Your task to perform on an android device: turn on improve location accuracy Image 0: 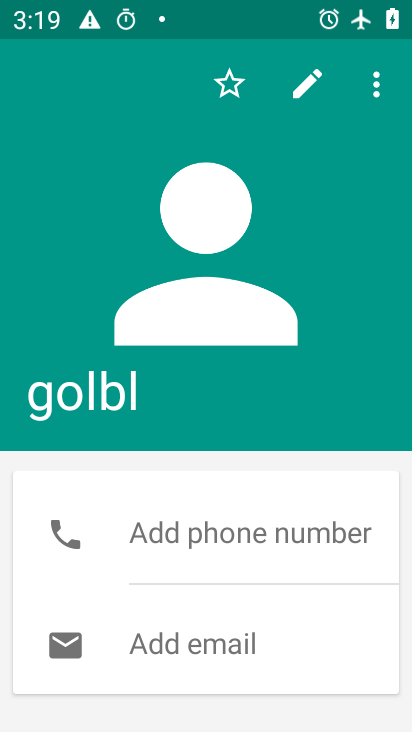
Step 0: press home button
Your task to perform on an android device: turn on improve location accuracy Image 1: 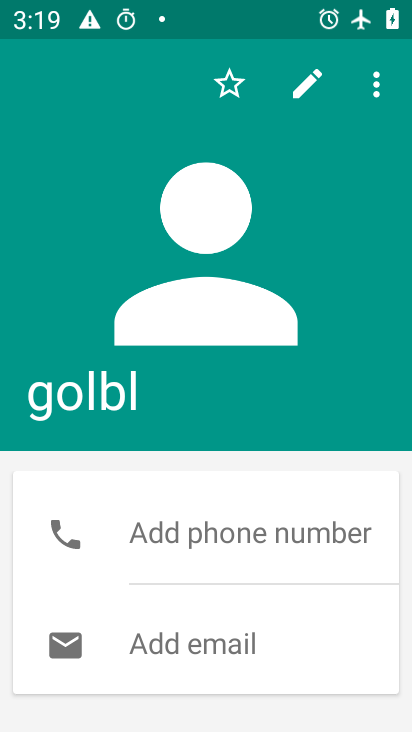
Step 1: press home button
Your task to perform on an android device: turn on improve location accuracy Image 2: 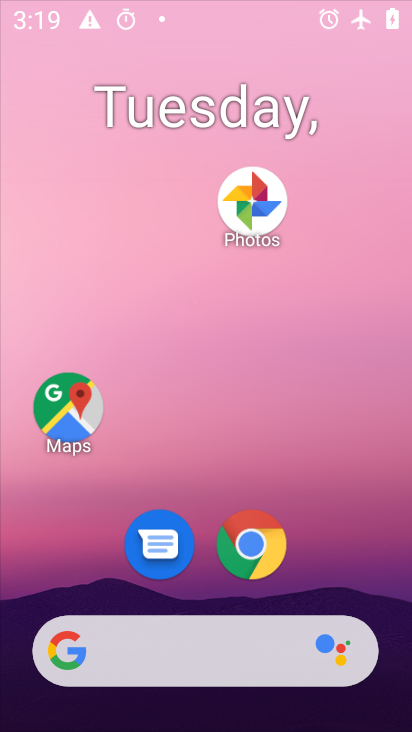
Step 2: press home button
Your task to perform on an android device: turn on improve location accuracy Image 3: 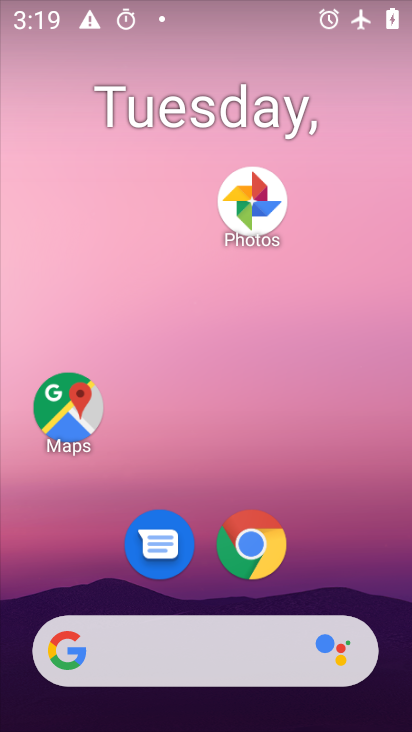
Step 3: drag from (320, 577) to (367, 59)
Your task to perform on an android device: turn on improve location accuracy Image 4: 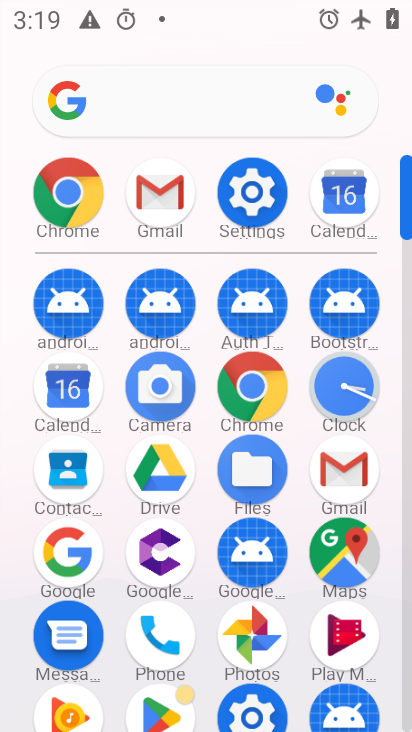
Step 4: click (236, 697)
Your task to perform on an android device: turn on improve location accuracy Image 5: 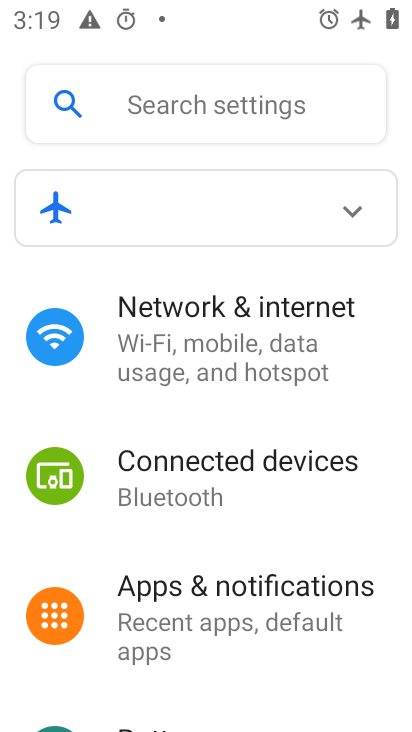
Step 5: drag from (258, 559) to (251, 119)
Your task to perform on an android device: turn on improve location accuracy Image 6: 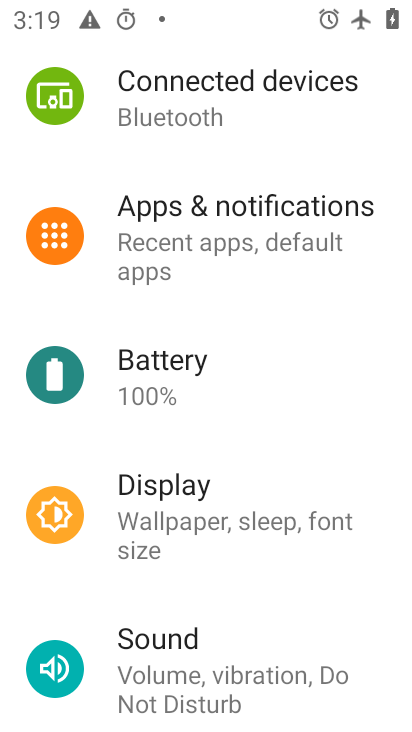
Step 6: drag from (250, 552) to (267, 121)
Your task to perform on an android device: turn on improve location accuracy Image 7: 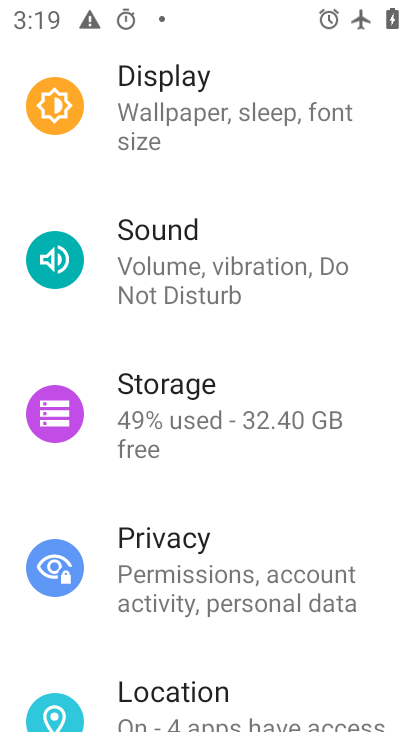
Step 7: drag from (258, 550) to (275, 118)
Your task to perform on an android device: turn on improve location accuracy Image 8: 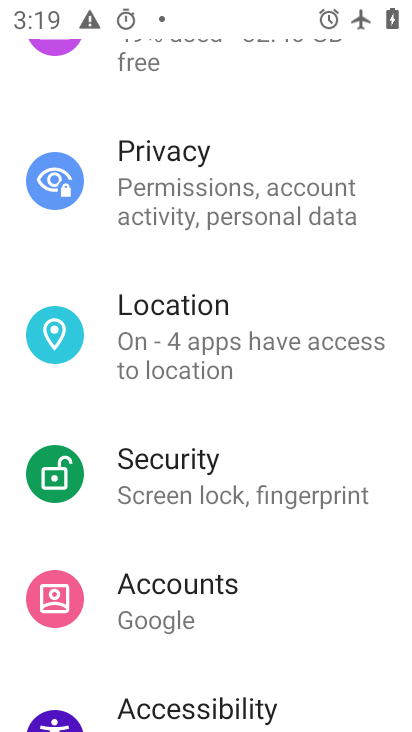
Step 8: click (198, 338)
Your task to perform on an android device: turn on improve location accuracy Image 9: 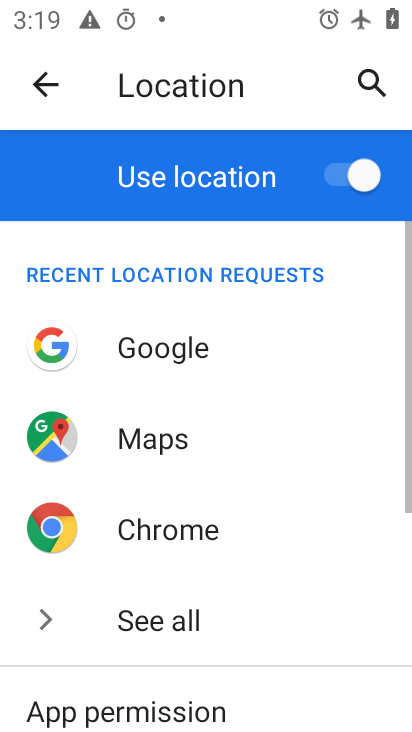
Step 9: drag from (312, 493) to (254, 18)
Your task to perform on an android device: turn on improve location accuracy Image 10: 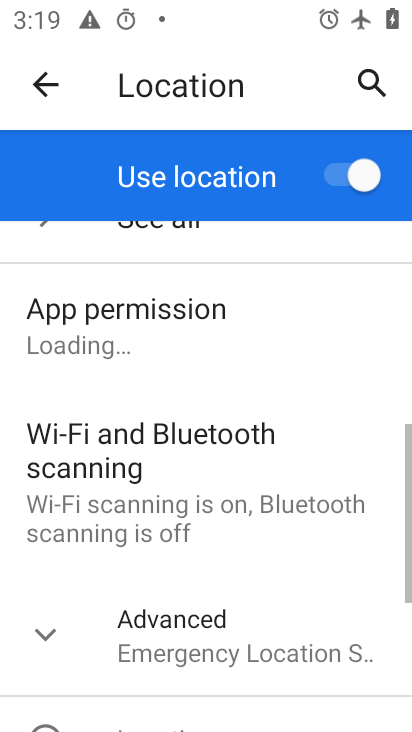
Step 10: drag from (238, 526) to (278, 82)
Your task to perform on an android device: turn on improve location accuracy Image 11: 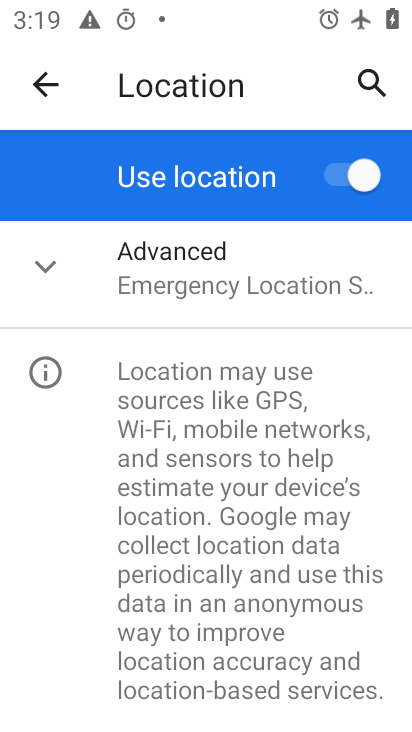
Step 11: click (187, 284)
Your task to perform on an android device: turn on improve location accuracy Image 12: 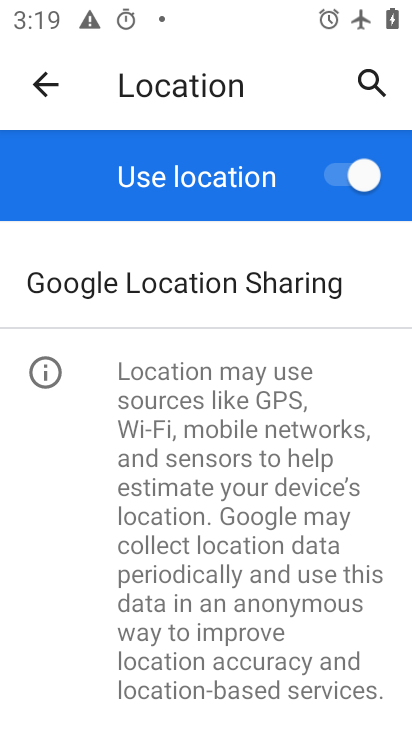
Step 12: drag from (216, 335) to (254, 681)
Your task to perform on an android device: turn on improve location accuracy Image 13: 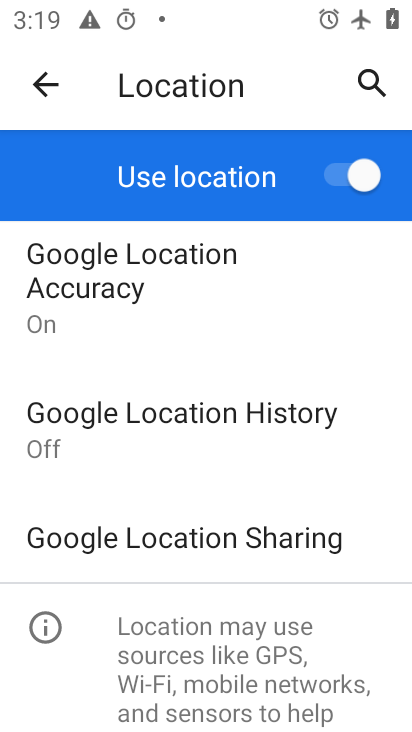
Step 13: click (142, 274)
Your task to perform on an android device: turn on improve location accuracy Image 14: 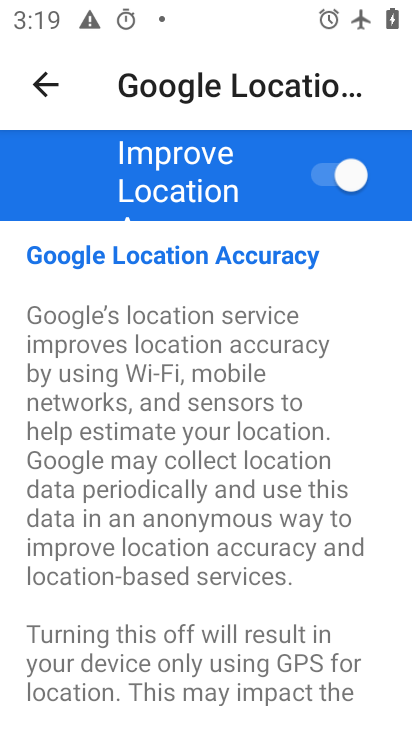
Step 14: task complete